Your task to perform on an android device: check data usage Image 0: 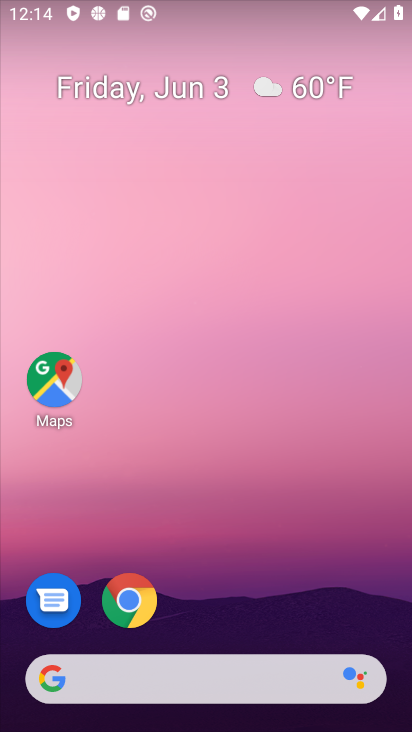
Step 0: drag from (321, 638) to (207, 129)
Your task to perform on an android device: check data usage Image 1: 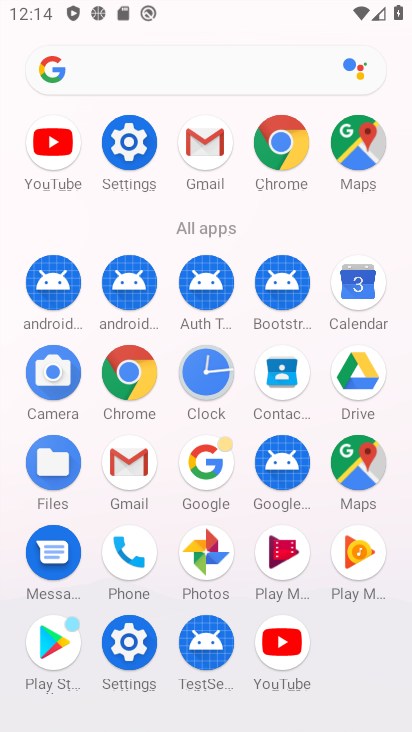
Step 1: click (126, 139)
Your task to perform on an android device: check data usage Image 2: 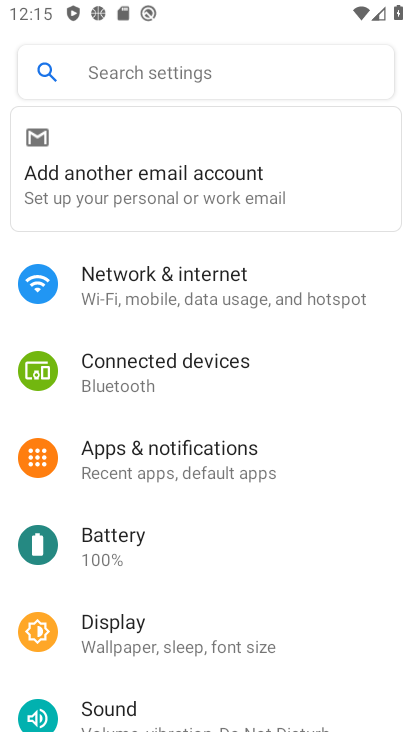
Step 2: click (165, 291)
Your task to perform on an android device: check data usage Image 3: 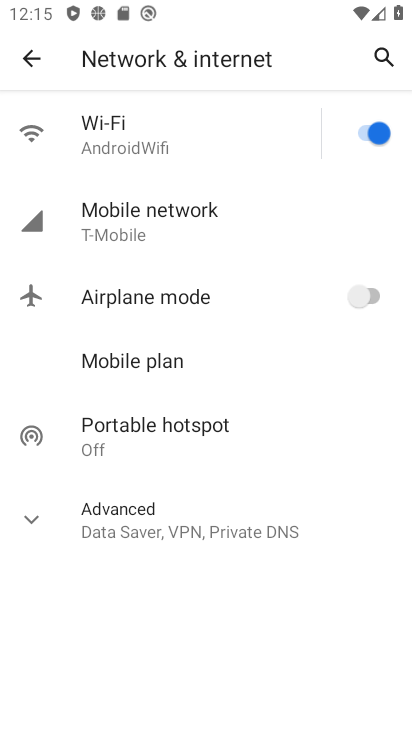
Step 3: click (154, 252)
Your task to perform on an android device: check data usage Image 4: 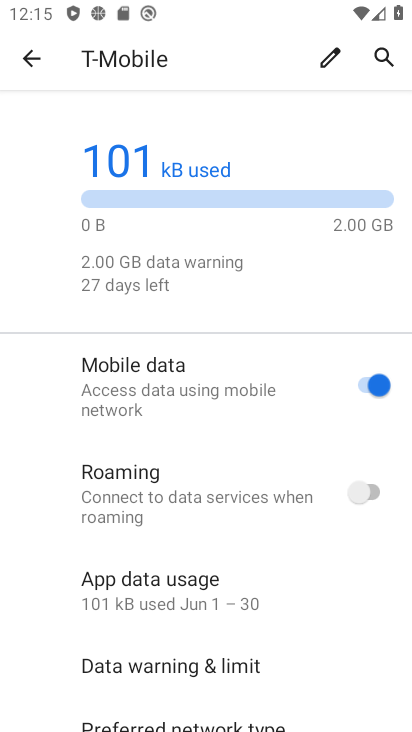
Step 4: task complete